Your task to perform on an android device: open a bookmark in the chrome app Image 0: 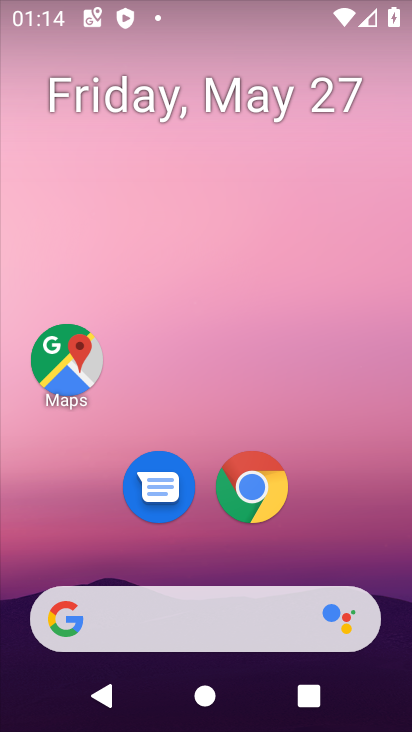
Step 0: click (260, 506)
Your task to perform on an android device: open a bookmark in the chrome app Image 1: 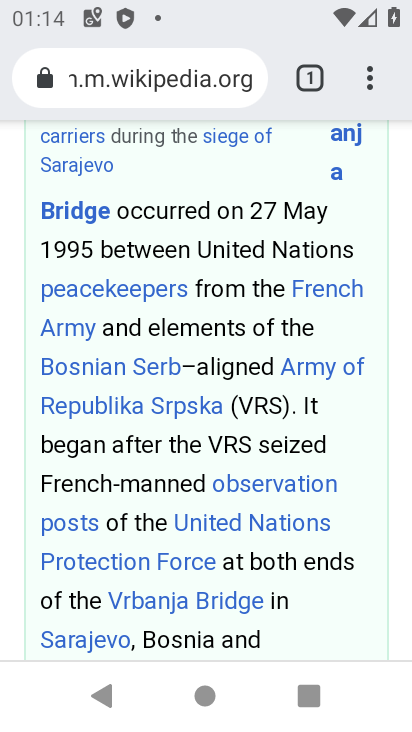
Step 1: click (375, 84)
Your task to perform on an android device: open a bookmark in the chrome app Image 2: 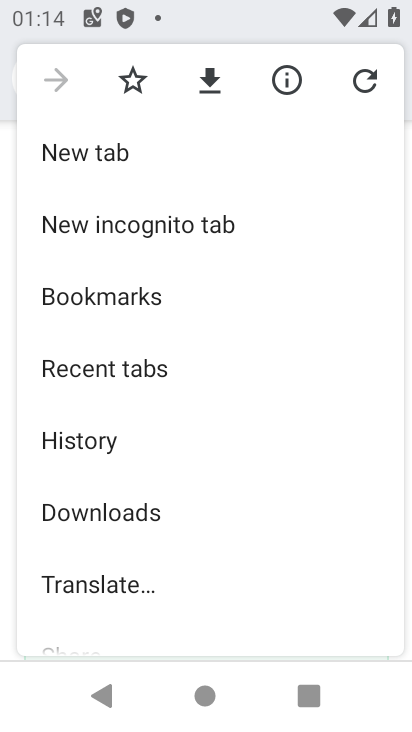
Step 2: click (183, 320)
Your task to perform on an android device: open a bookmark in the chrome app Image 3: 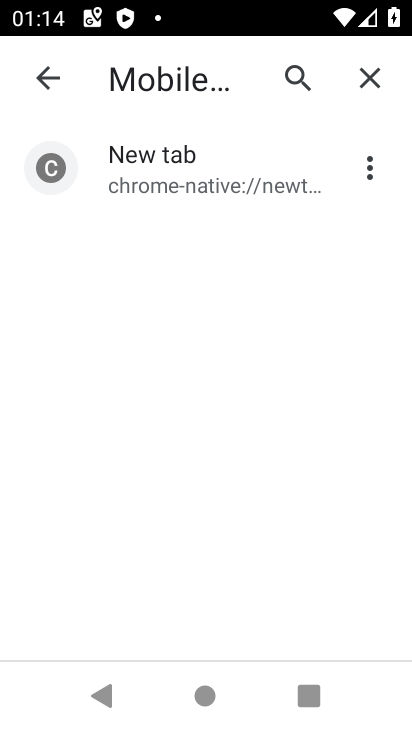
Step 3: click (210, 163)
Your task to perform on an android device: open a bookmark in the chrome app Image 4: 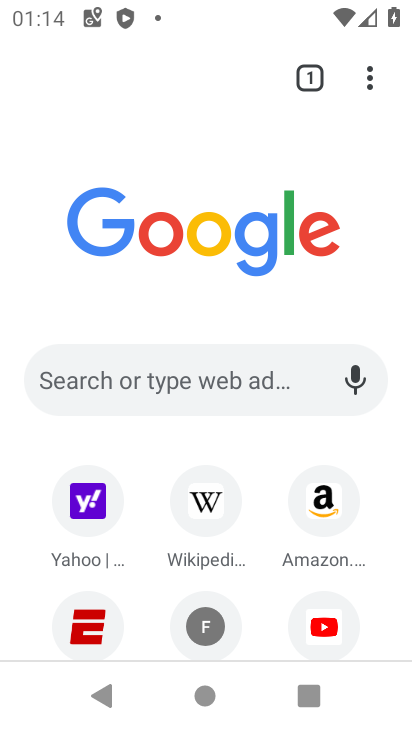
Step 4: task complete